Your task to perform on an android device: open wifi settings Image 0: 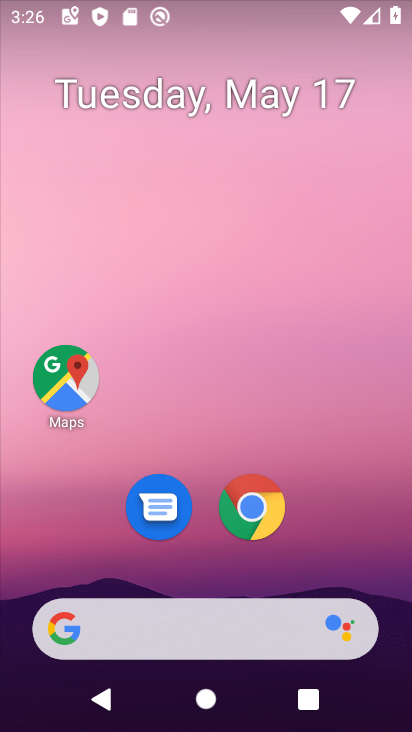
Step 0: drag from (352, 504) to (310, 79)
Your task to perform on an android device: open wifi settings Image 1: 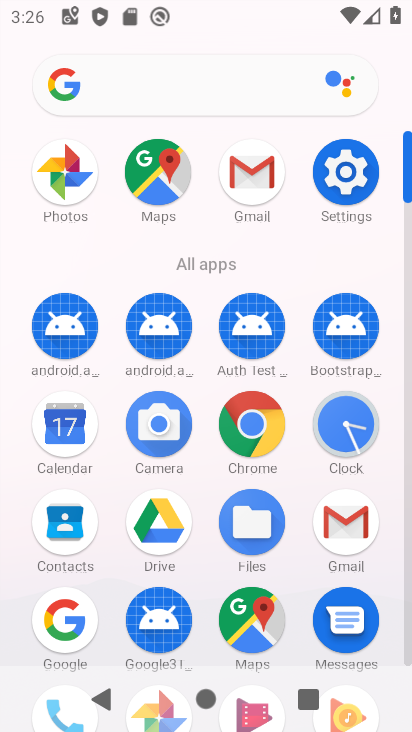
Step 1: click (351, 163)
Your task to perform on an android device: open wifi settings Image 2: 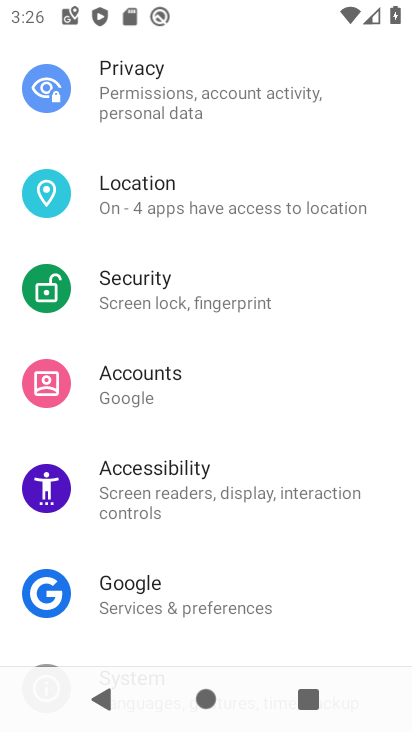
Step 2: drag from (263, 149) to (215, 582)
Your task to perform on an android device: open wifi settings Image 3: 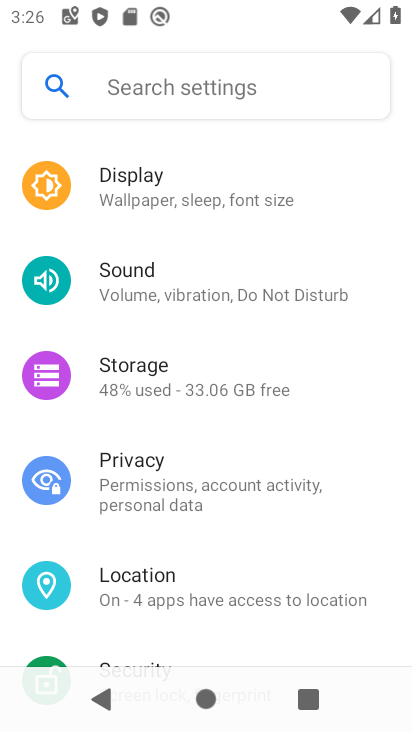
Step 3: drag from (222, 536) to (260, 193)
Your task to perform on an android device: open wifi settings Image 4: 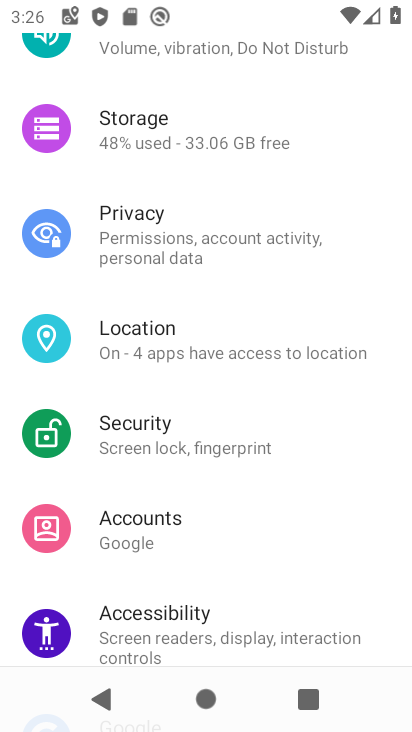
Step 4: drag from (247, 137) to (259, 607)
Your task to perform on an android device: open wifi settings Image 5: 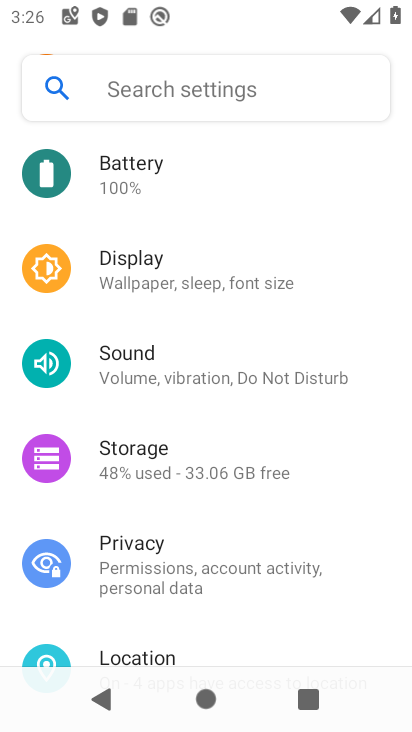
Step 5: drag from (237, 211) to (225, 686)
Your task to perform on an android device: open wifi settings Image 6: 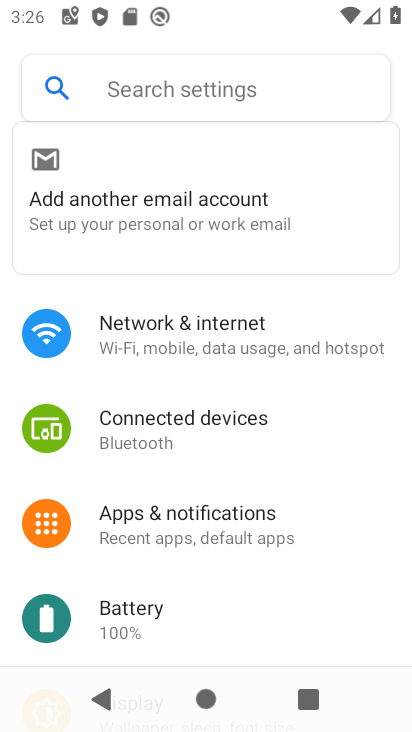
Step 6: click (162, 328)
Your task to perform on an android device: open wifi settings Image 7: 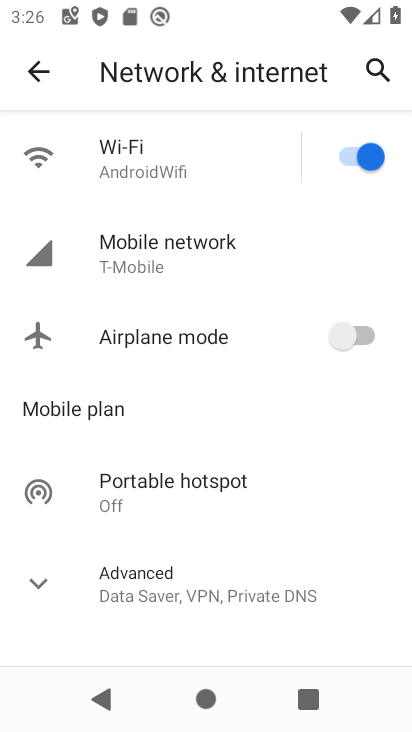
Step 7: click (182, 151)
Your task to perform on an android device: open wifi settings Image 8: 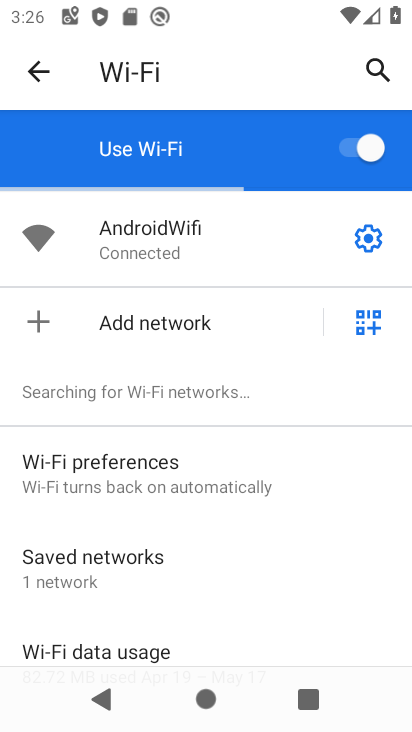
Step 8: click (381, 236)
Your task to perform on an android device: open wifi settings Image 9: 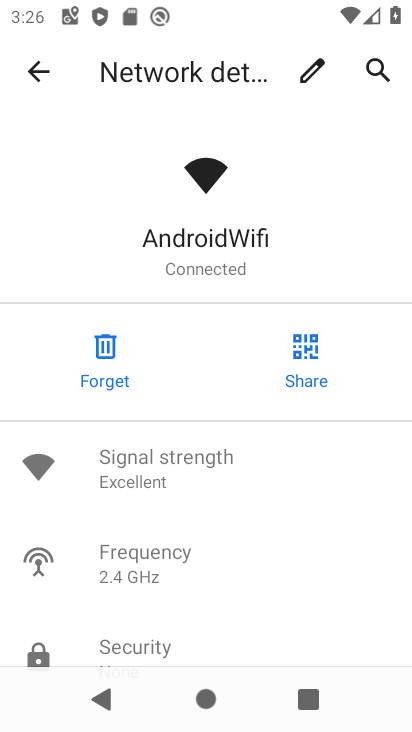
Step 9: task complete